Your task to perform on an android device: open app "Speedtest by Ookla" (install if not already installed) and go to login screen Image 0: 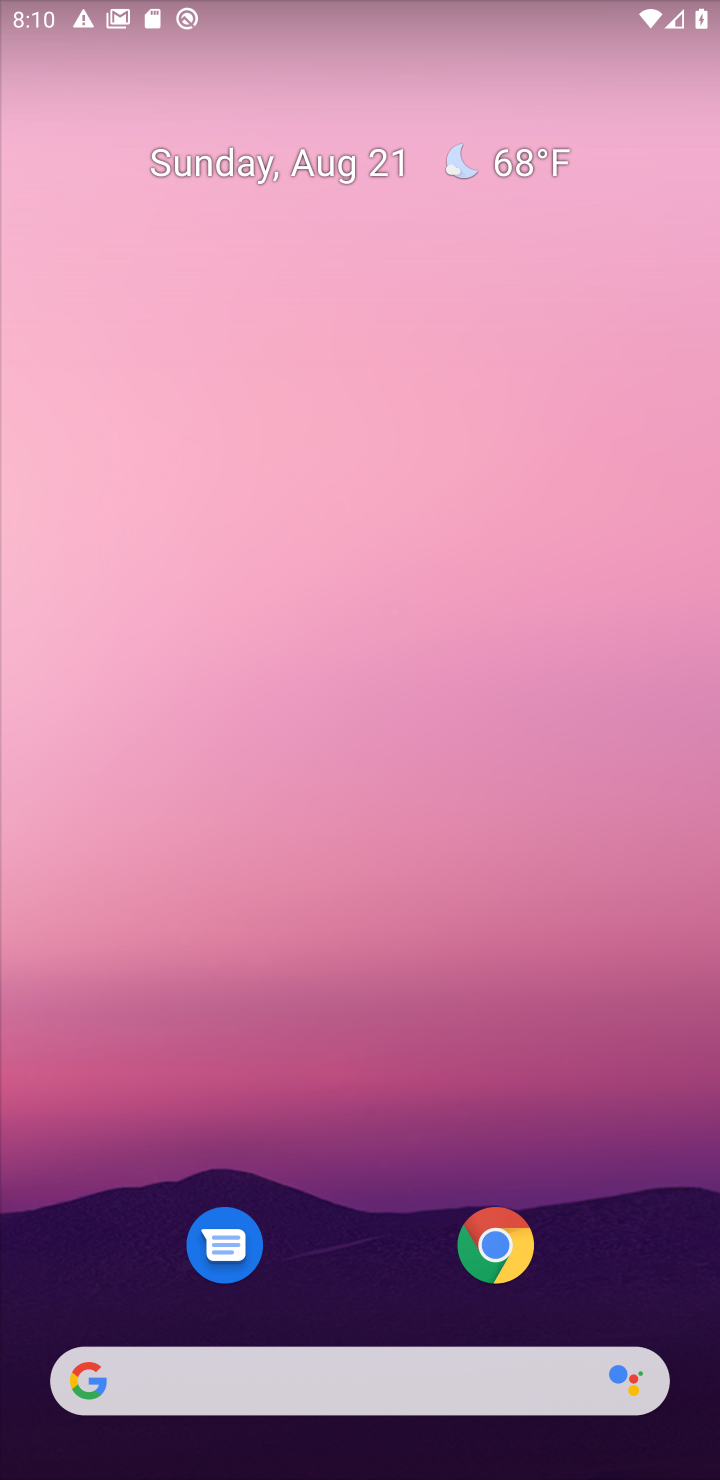
Step 0: drag from (293, 1333) to (159, 186)
Your task to perform on an android device: open app "Speedtest by Ookla" (install if not already installed) and go to login screen Image 1: 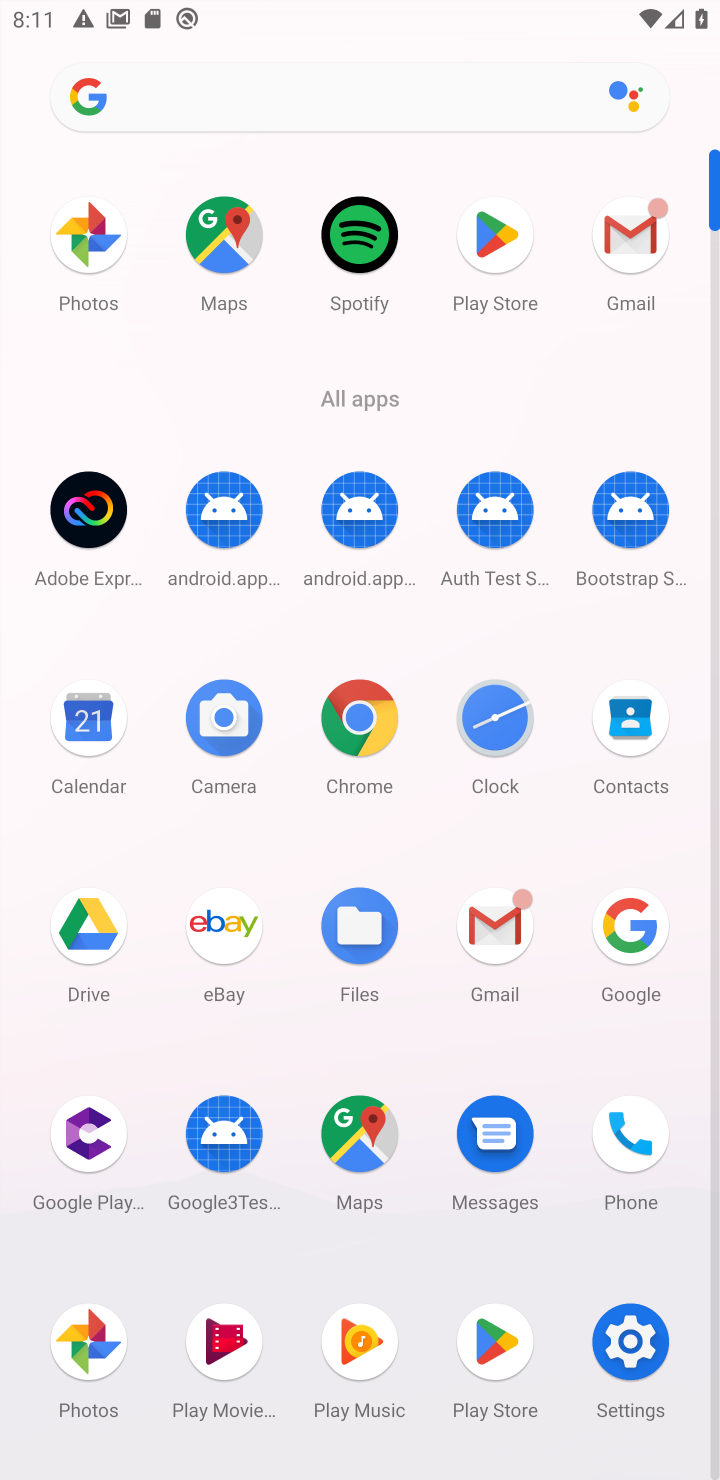
Step 1: click (483, 1357)
Your task to perform on an android device: open app "Speedtest by Ookla" (install if not already installed) and go to login screen Image 2: 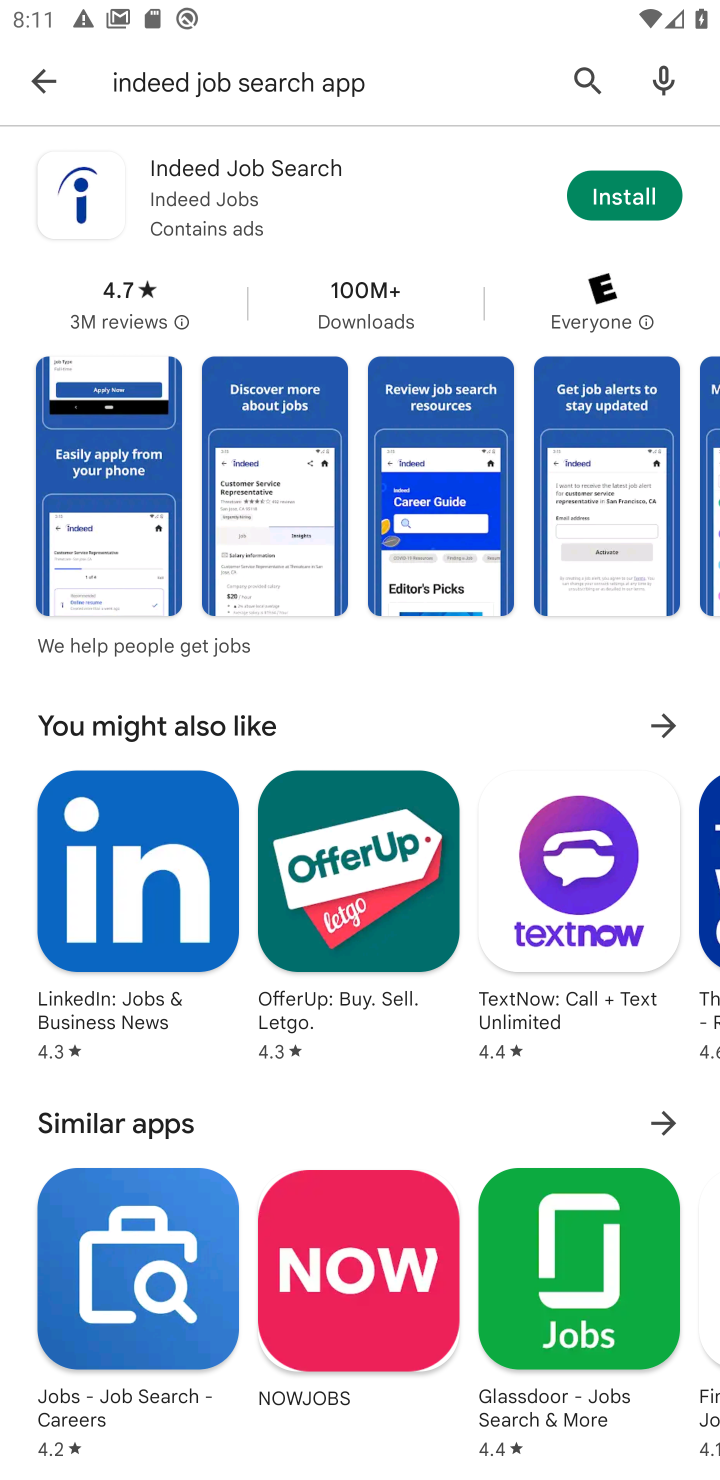
Step 2: click (25, 74)
Your task to perform on an android device: open app "Speedtest by Ookla" (install if not already installed) and go to login screen Image 3: 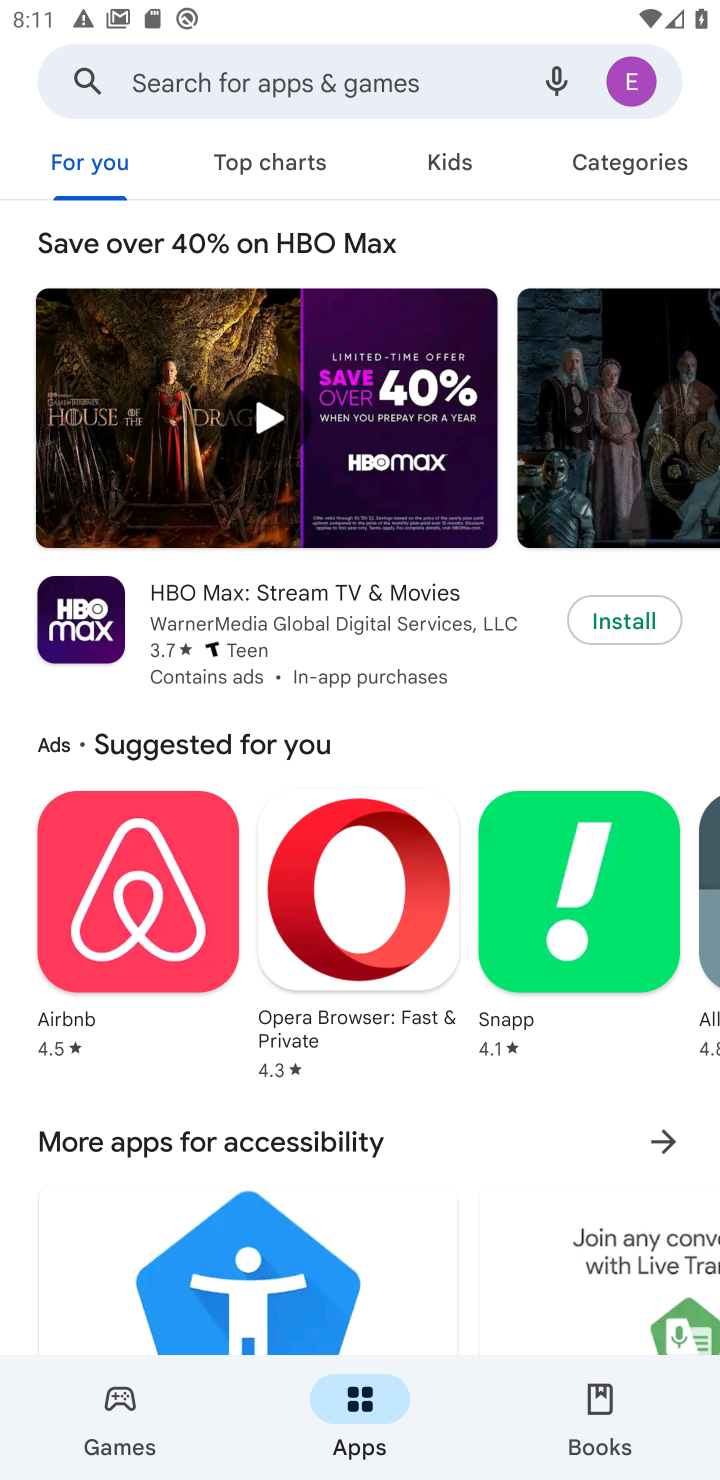
Step 3: click (189, 62)
Your task to perform on an android device: open app "Speedtest by Ookla" (install if not already installed) and go to login screen Image 4: 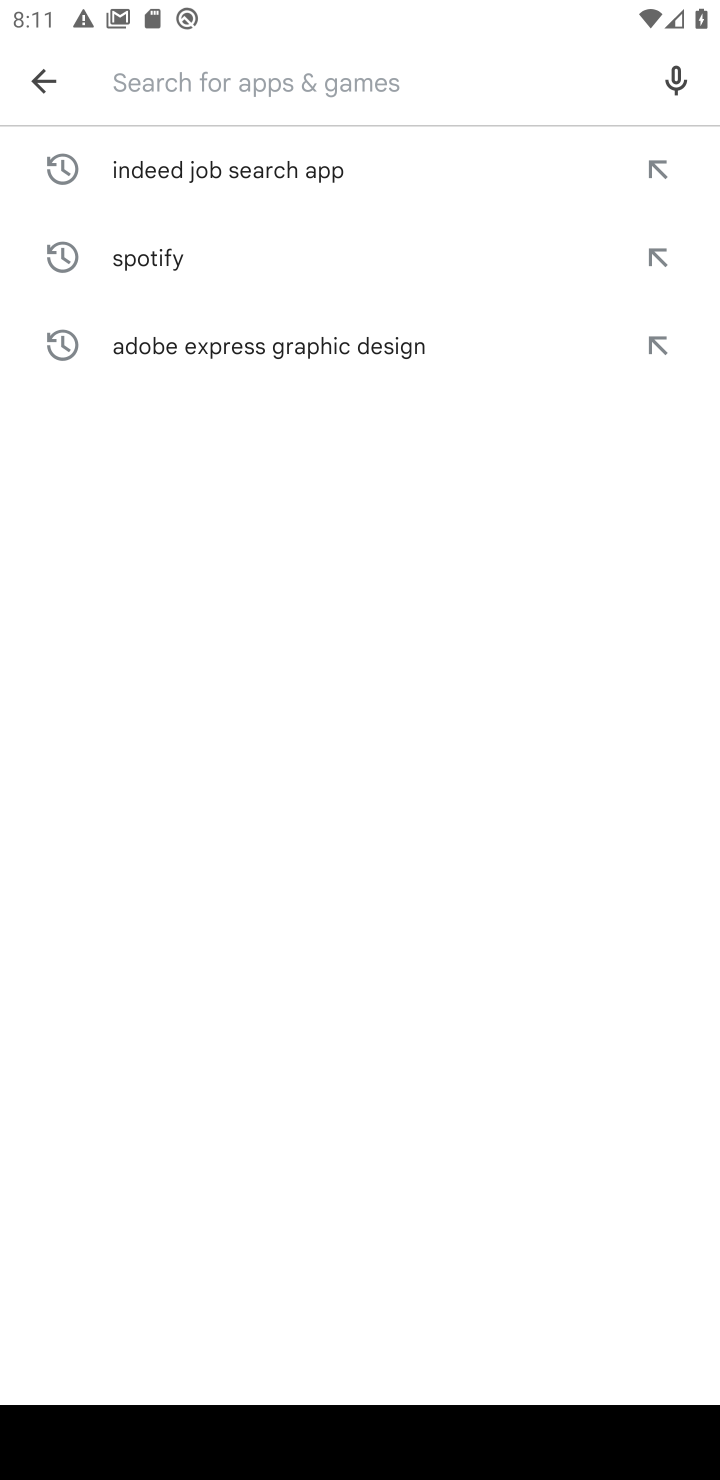
Step 4: type "Speedtest by Ookla"
Your task to perform on an android device: open app "Speedtest by Ookla" (install if not already installed) and go to login screen Image 5: 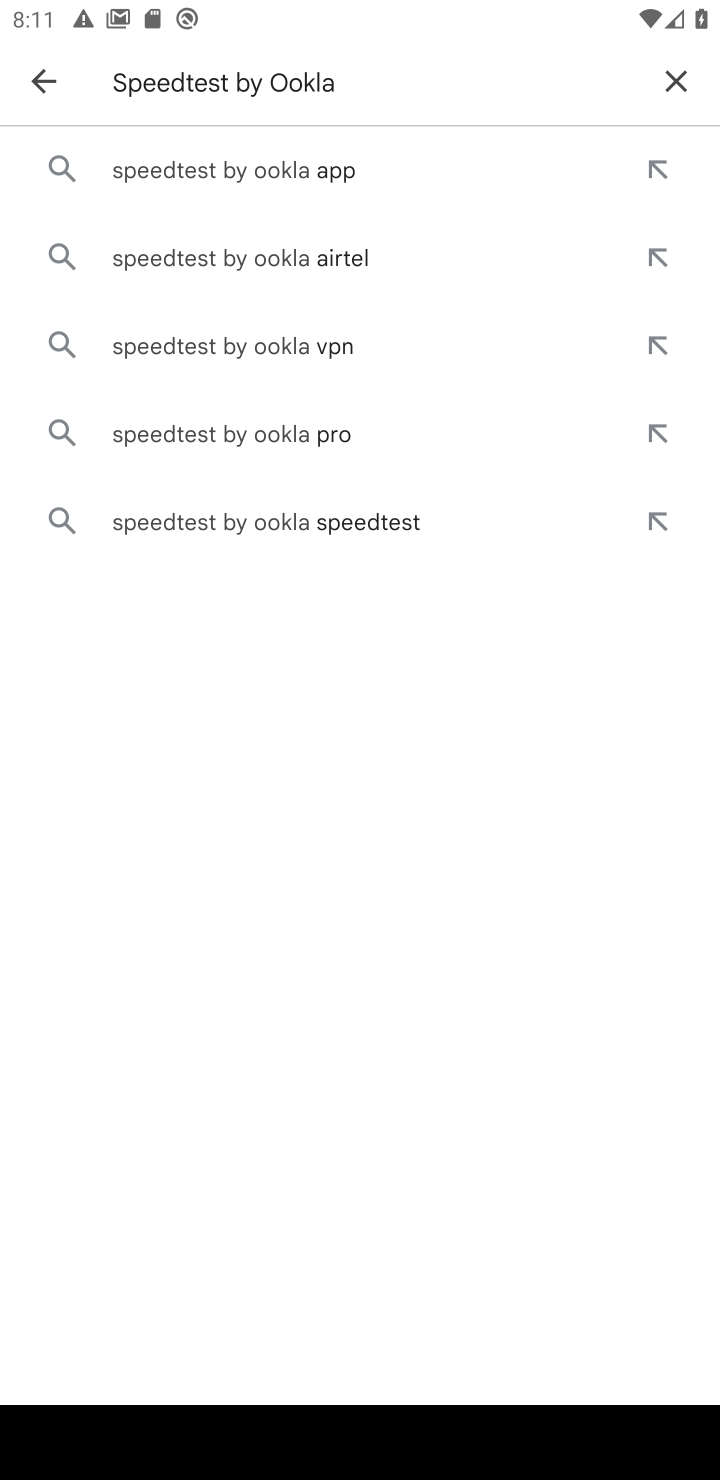
Step 5: click (206, 155)
Your task to perform on an android device: open app "Speedtest by Ookla" (install if not already installed) and go to login screen Image 6: 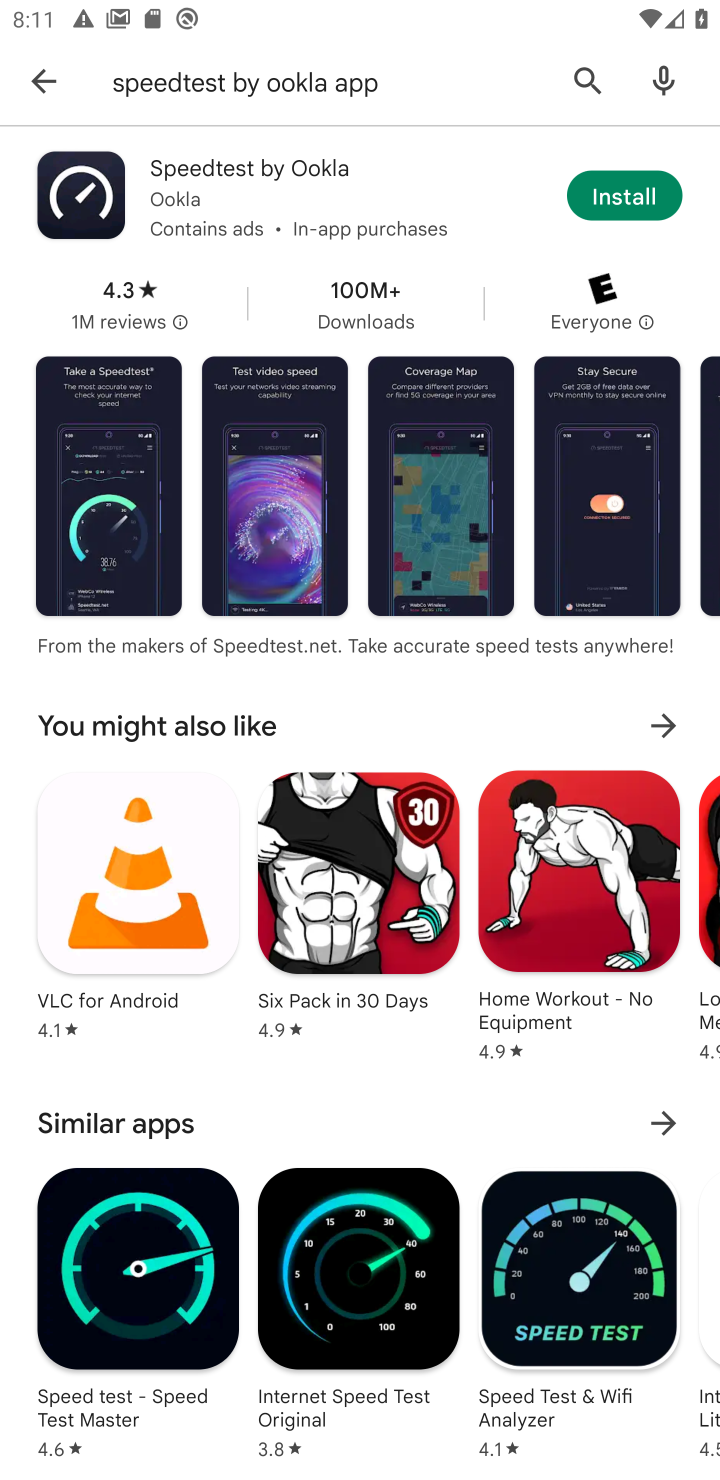
Step 6: click (606, 190)
Your task to perform on an android device: open app "Speedtest by Ookla" (install if not already installed) and go to login screen Image 7: 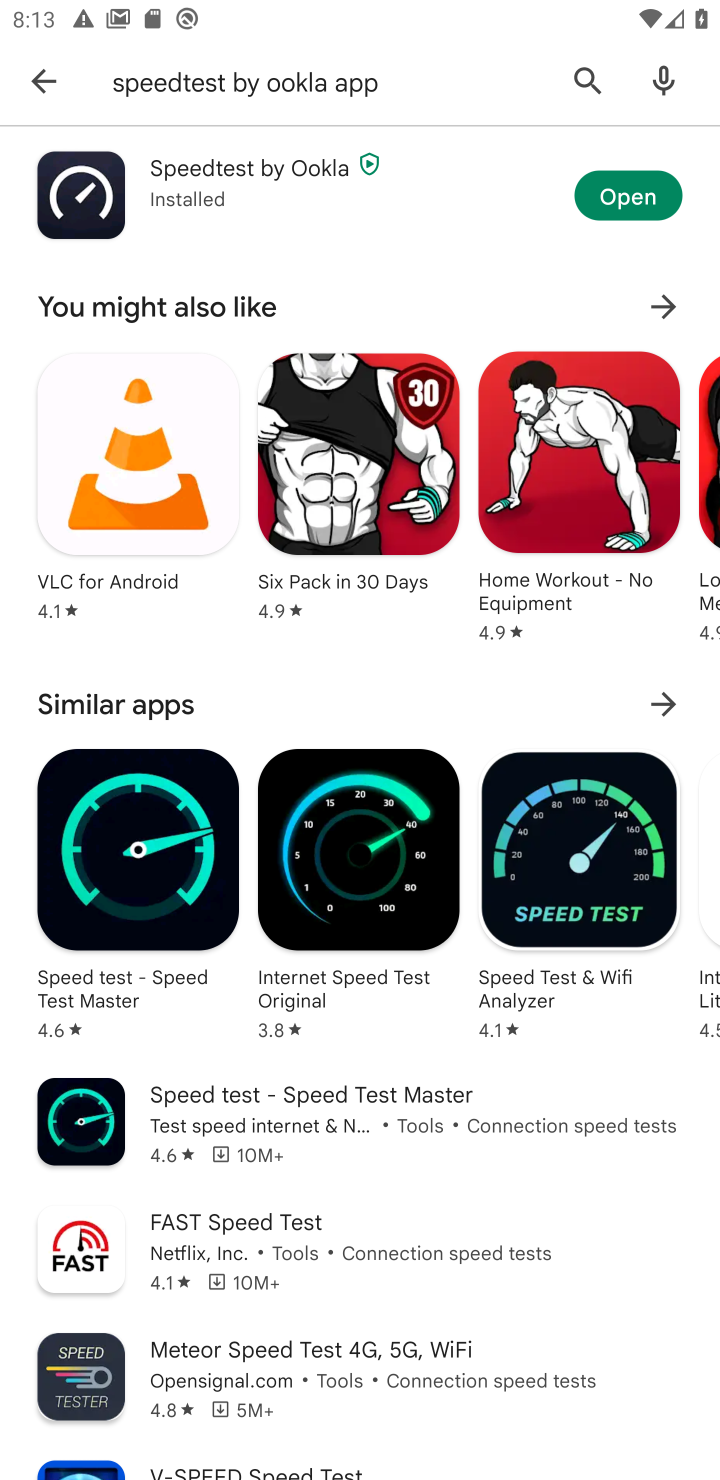
Step 7: click (604, 201)
Your task to perform on an android device: open app "Speedtest by Ookla" (install if not already installed) and go to login screen Image 8: 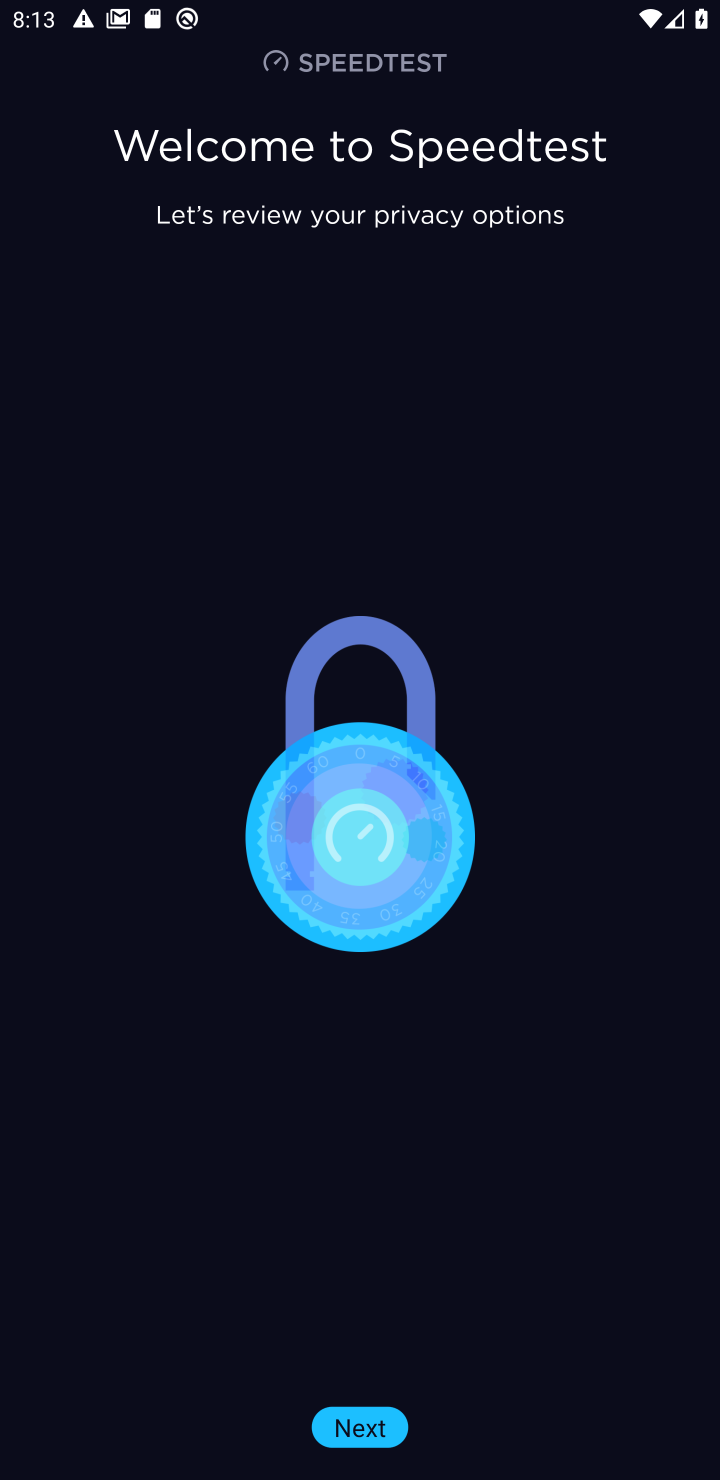
Step 8: task complete